Your task to perform on an android device: open the mobile data screen to see how much data has been used Image 0: 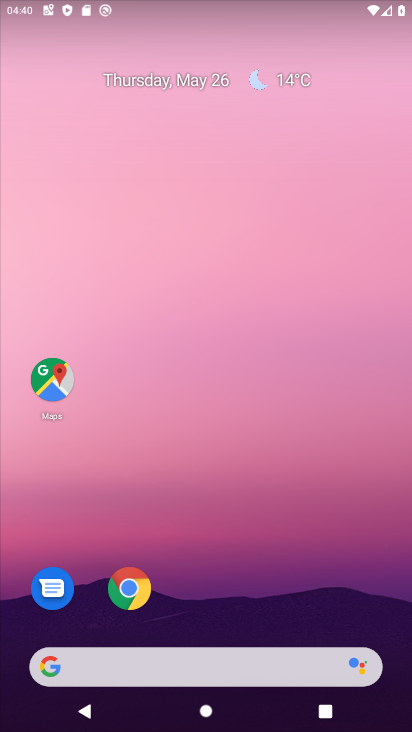
Step 0: drag from (244, 585) to (296, 150)
Your task to perform on an android device: open the mobile data screen to see how much data has been used Image 1: 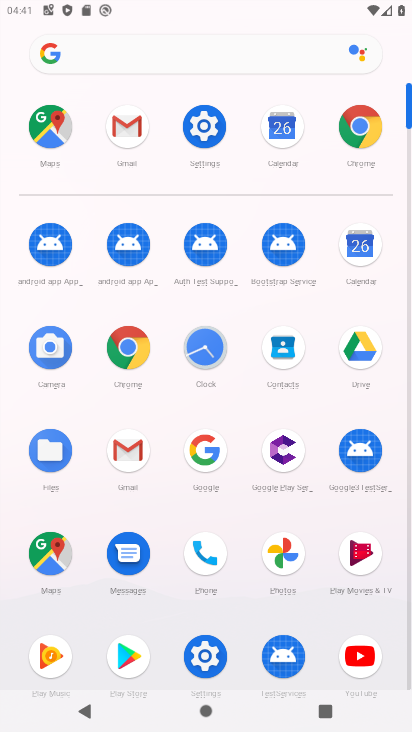
Step 1: click (194, 137)
Your task to perform on an android device: open the mobile data screen to see how much data has been used Image 2: 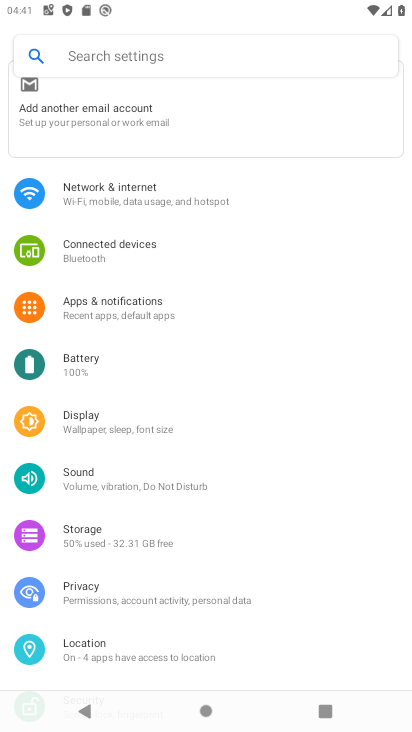
Step 2: click (168, 202)
Your task to perform on an android device: open the mobile data screen to see how much data has been used Image 3: 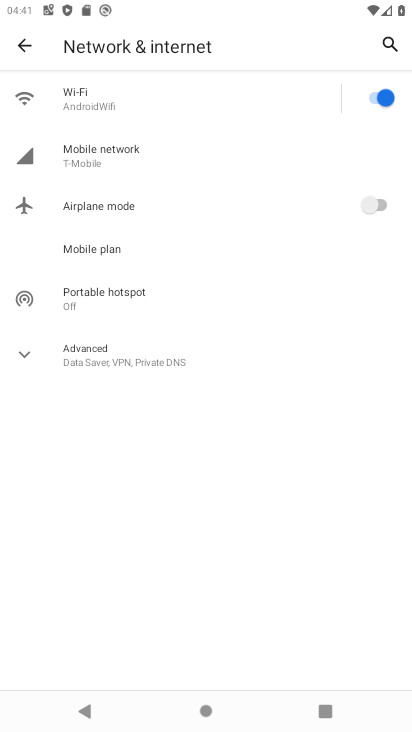
Step 3: click (119, 180)
Your task to perform on an android device: open the mobile data screen to see how much data has been used Image 4: 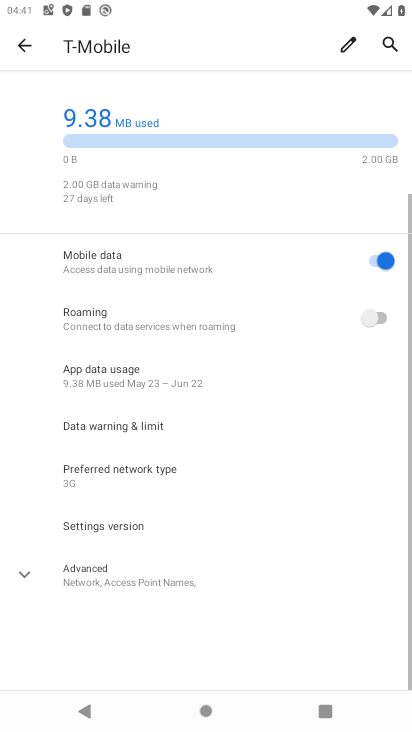
Step 4: task complete